Your task to perform on an android device: Search for pizza restaurants on Maps Image 0: 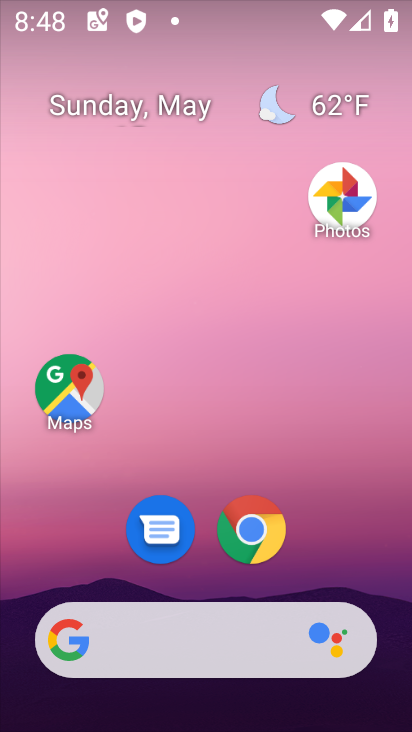
Step 0: drag from (284, 533) to (310, 151)
Your task to perform on an android device: Search for pizza restaurants on Maps Image 1: 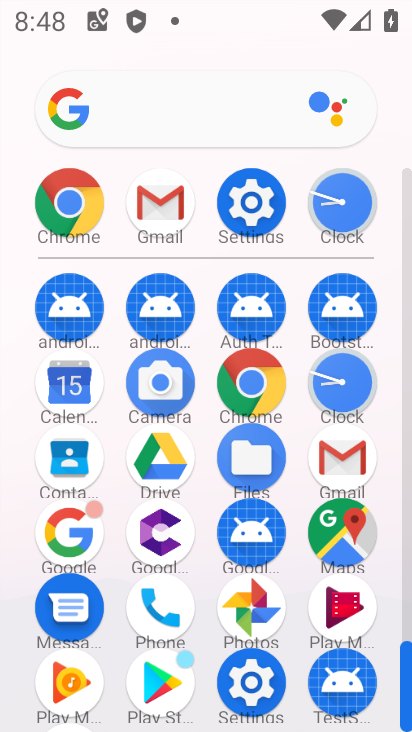
Step 1: click (322, 527)
Your task to perform on an android device: Search for pizza restaurants on Maps Image 2: 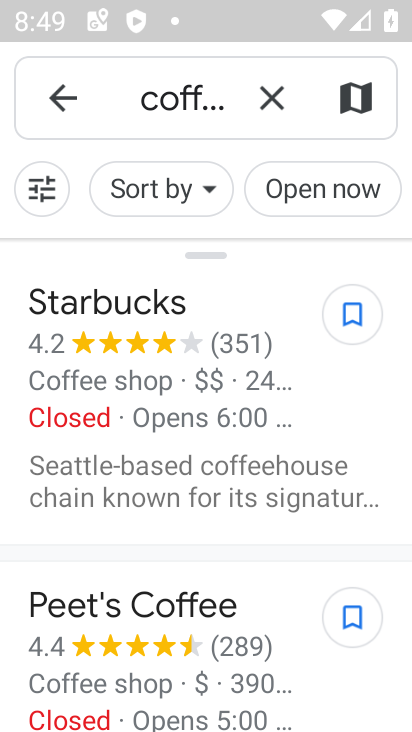
Step 2: click (279, 100)
Your task to perform on an android device: Search for pizza restaurants on Maps Image 3: 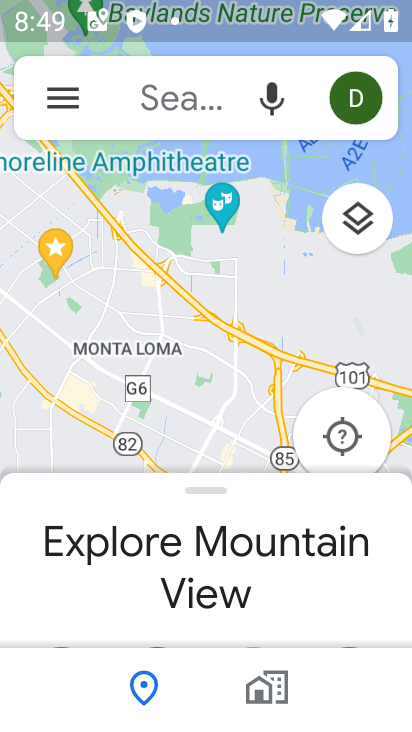
Step 3: click (155, 103)
Your task to perform on an android device: Search for pizza restaurants on Maps Image 4: 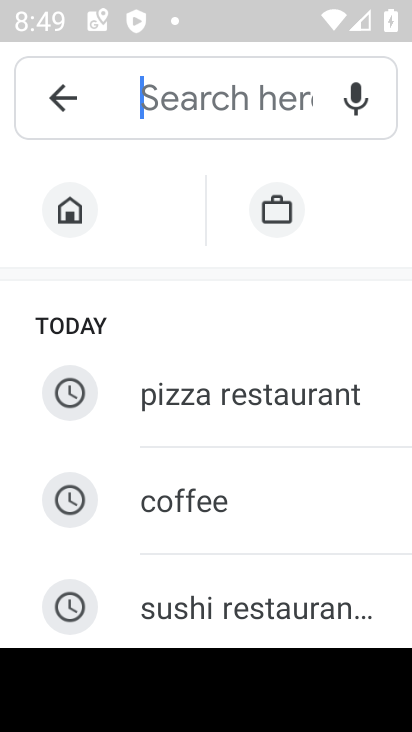
Step 4: type "pizza restaurants "
Your task to perform on an android device: Search for pizza restaurants on Maps Image 5: 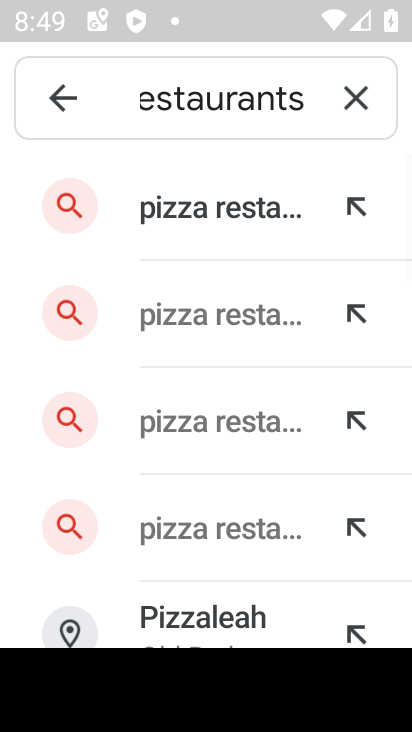
Step 5: click (246, 224)
Your task to perform on an android device: Search for pizza restaurants on Maps Image 6: 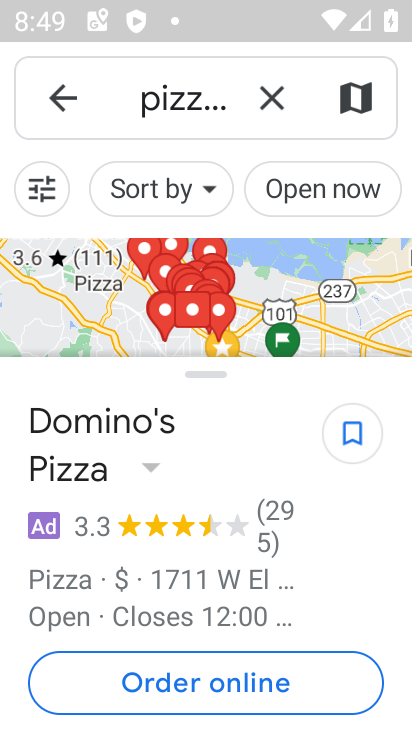
Step 6: task complete